Your task to perform on an android device: Go to privacy settings Image 0: 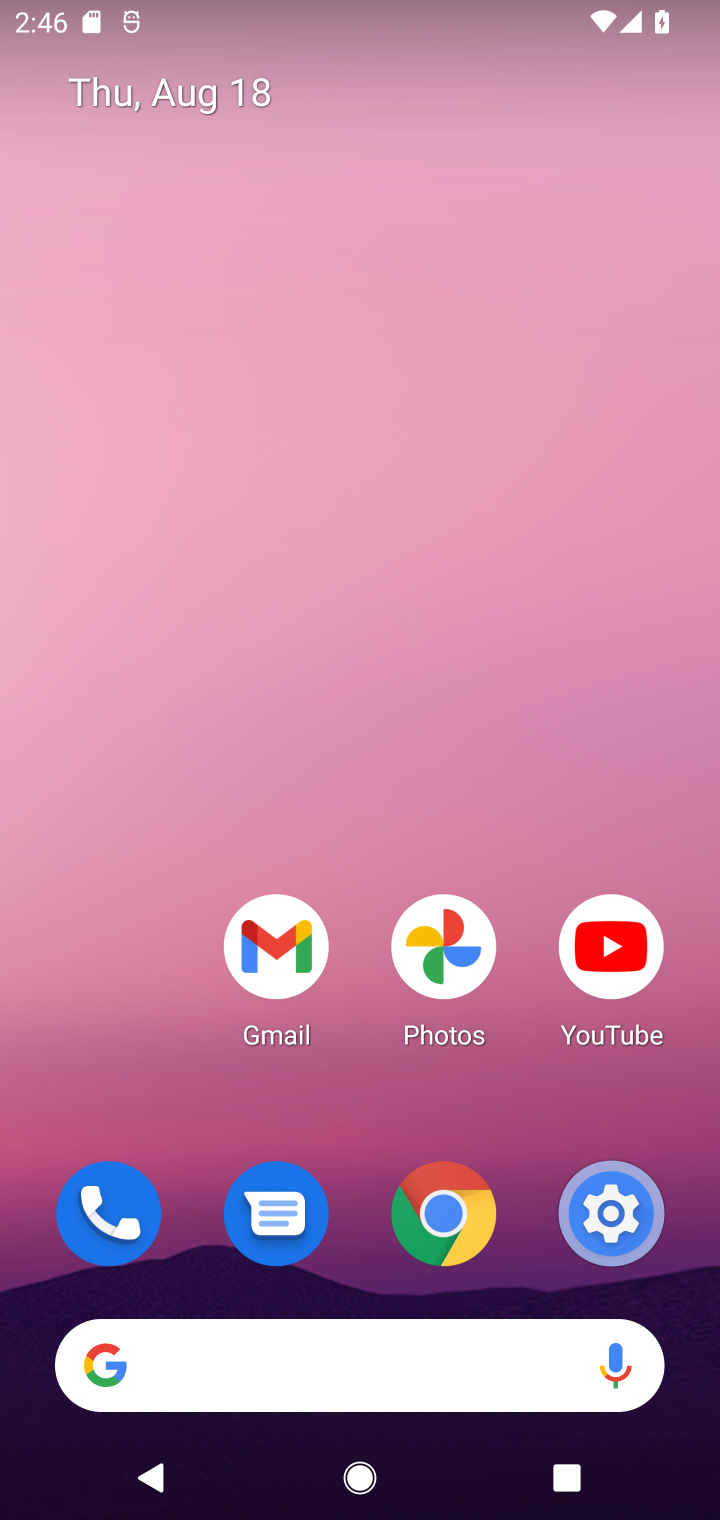
Step 0: press home button
Your task to perform on an android device: Go to privacy settings Image 1: 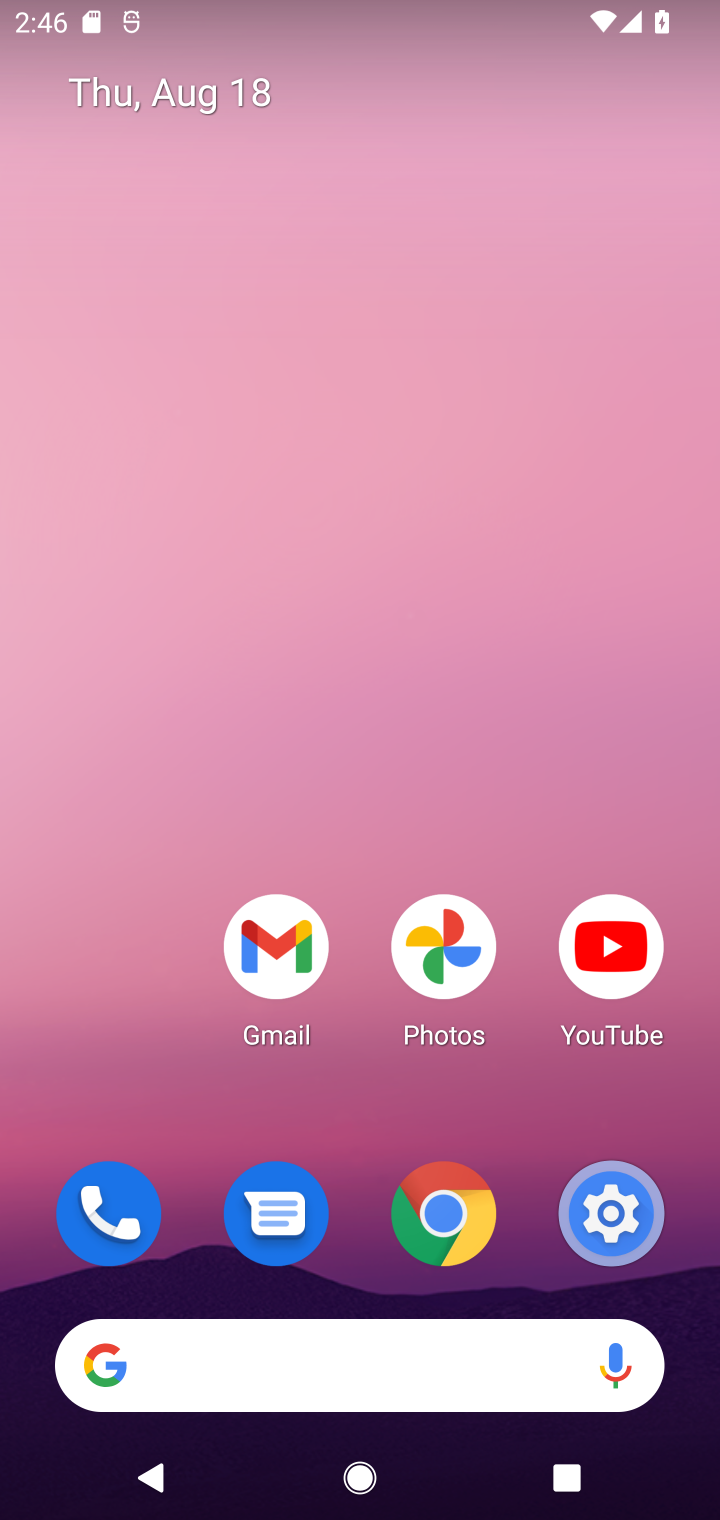
Step 1: click (622, 1215)
Your task to perform on an android device: Go to privacy settings Image 2: 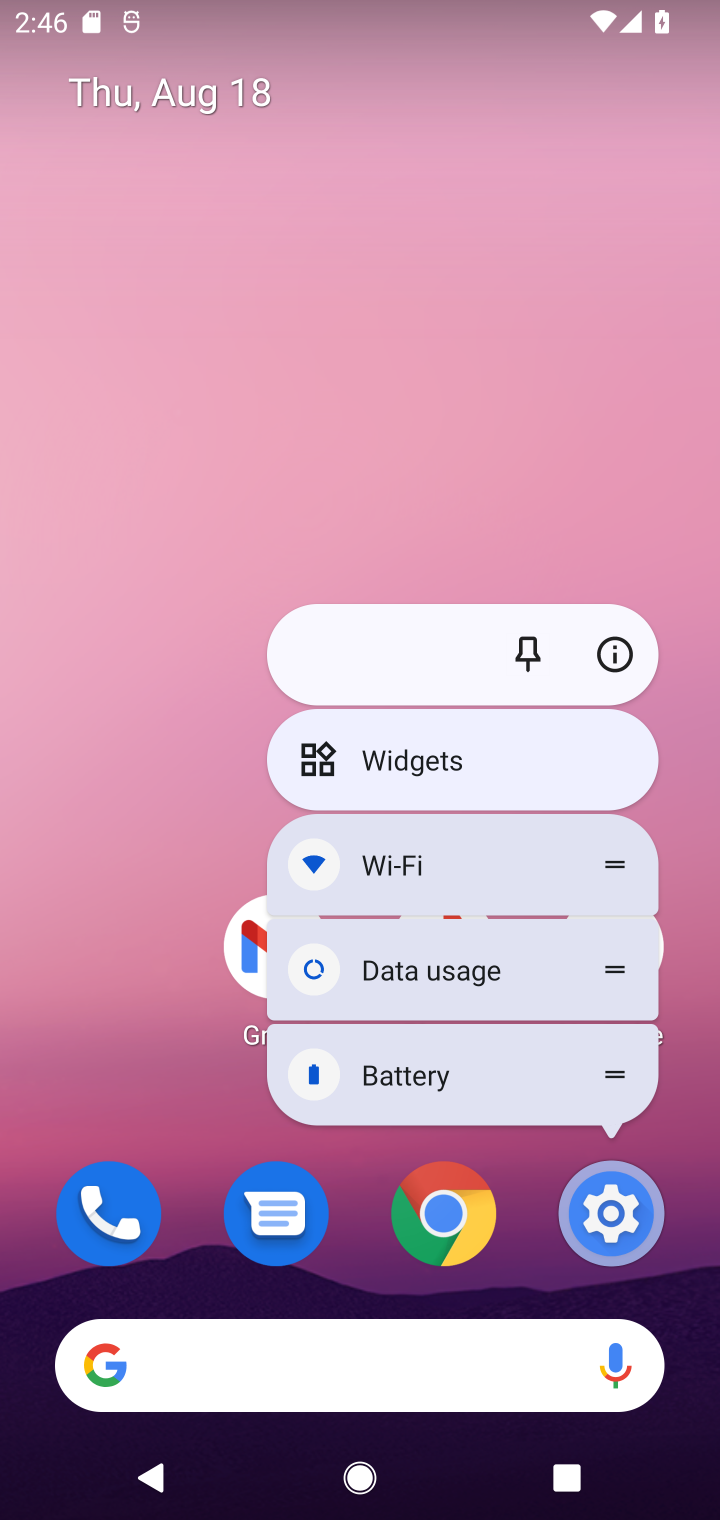
Step 2: click (611, 1223)
Your task to perform on an android device: Go to privacy settings Image 3: 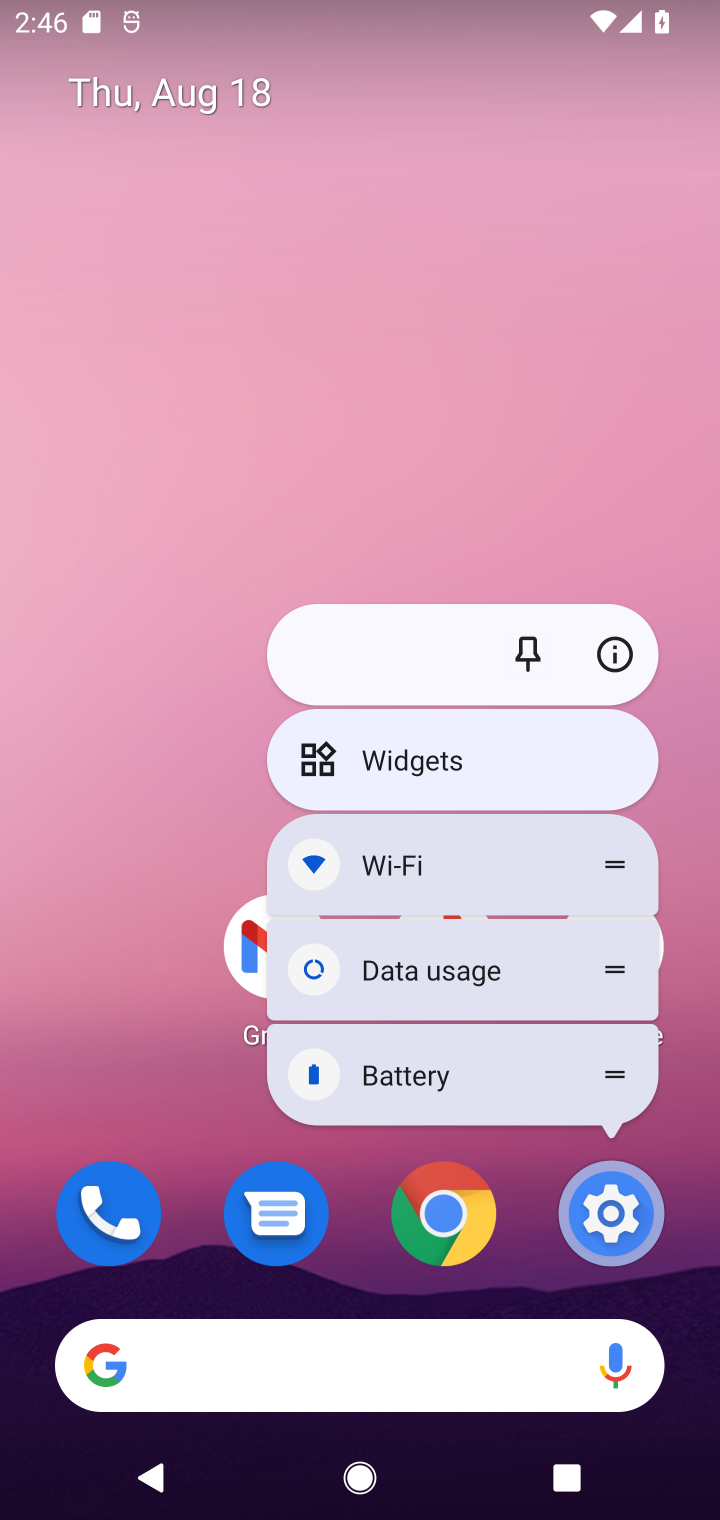
Step 3: click (611, 1223)
Your task to perform on an android device: Go to privacy settings Image 4: 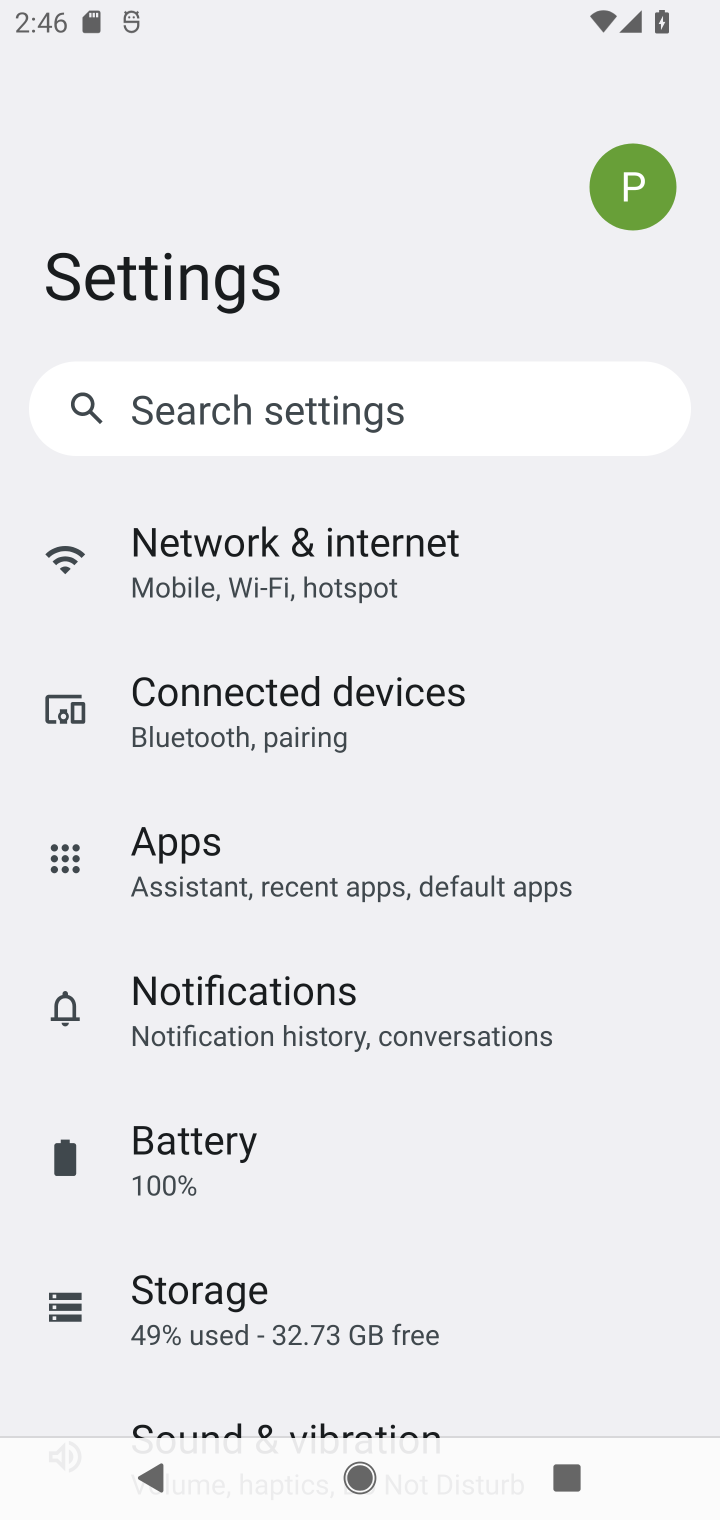
Step 4: click (375, 579)
Your task to perform on an android device: Go to privacy settings Image 5: 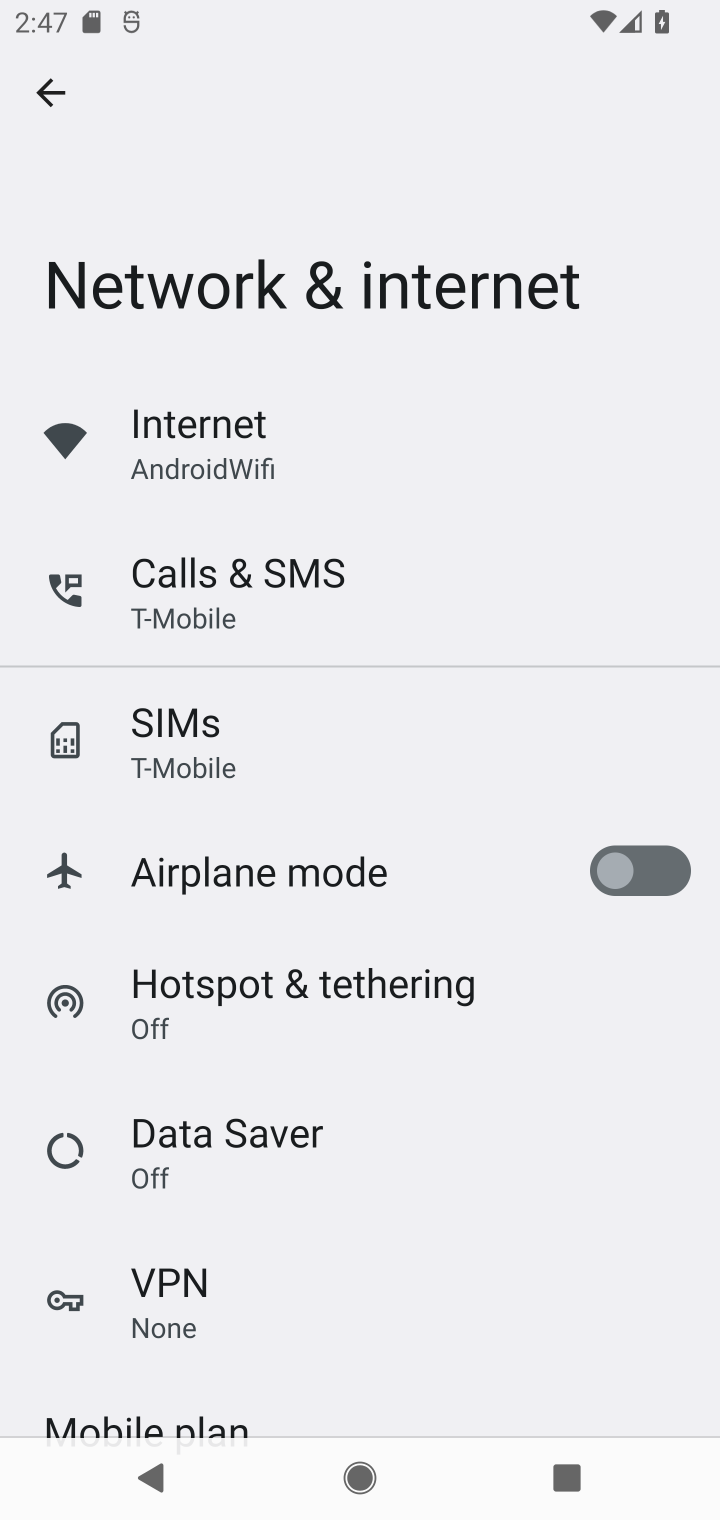
Step 5: drag from (70, 1240) to (127, 286)
Your task to perform on an android device: Go to privacy settings Image 6: 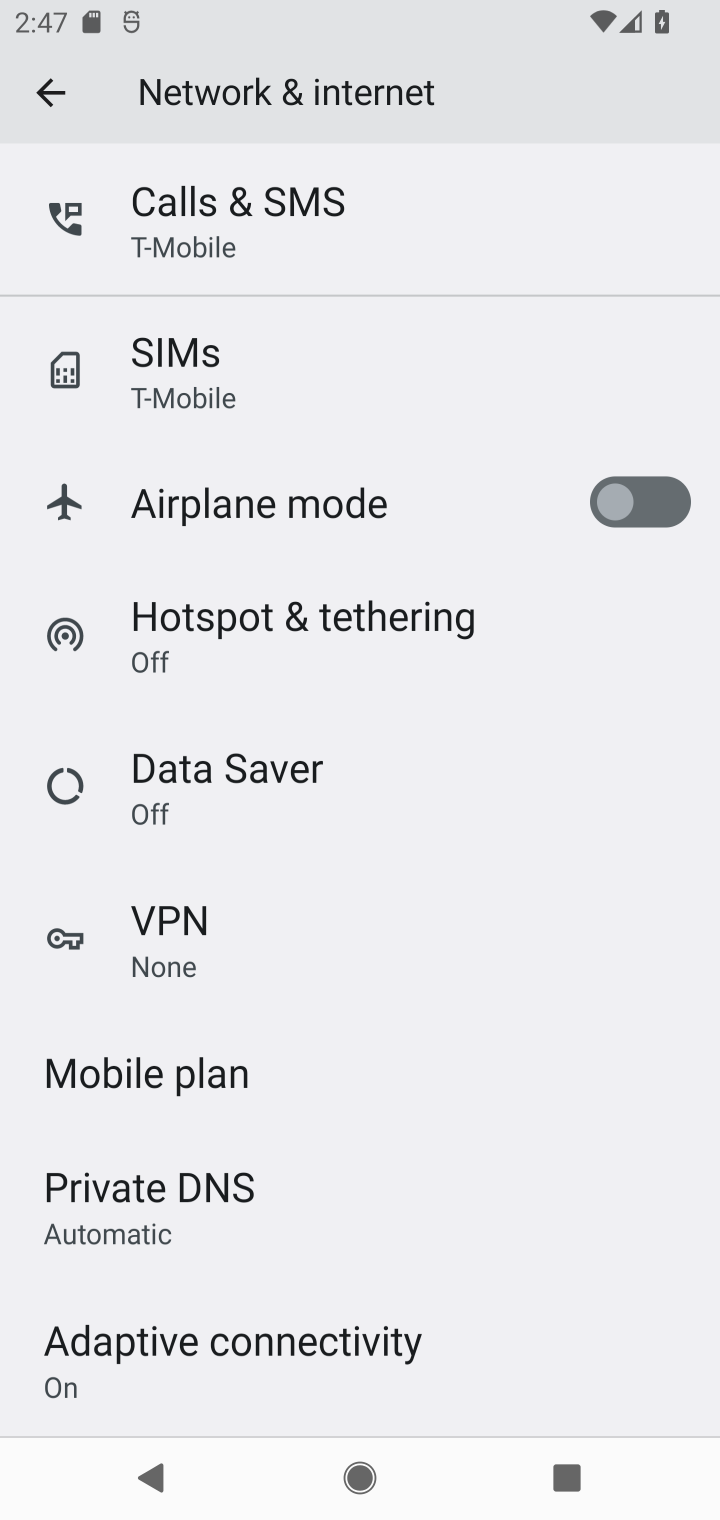
Step 6: drag from (191, 1269) to (249, 1514)
Your task to perform on an android device: Go to privacy settings Image 7: 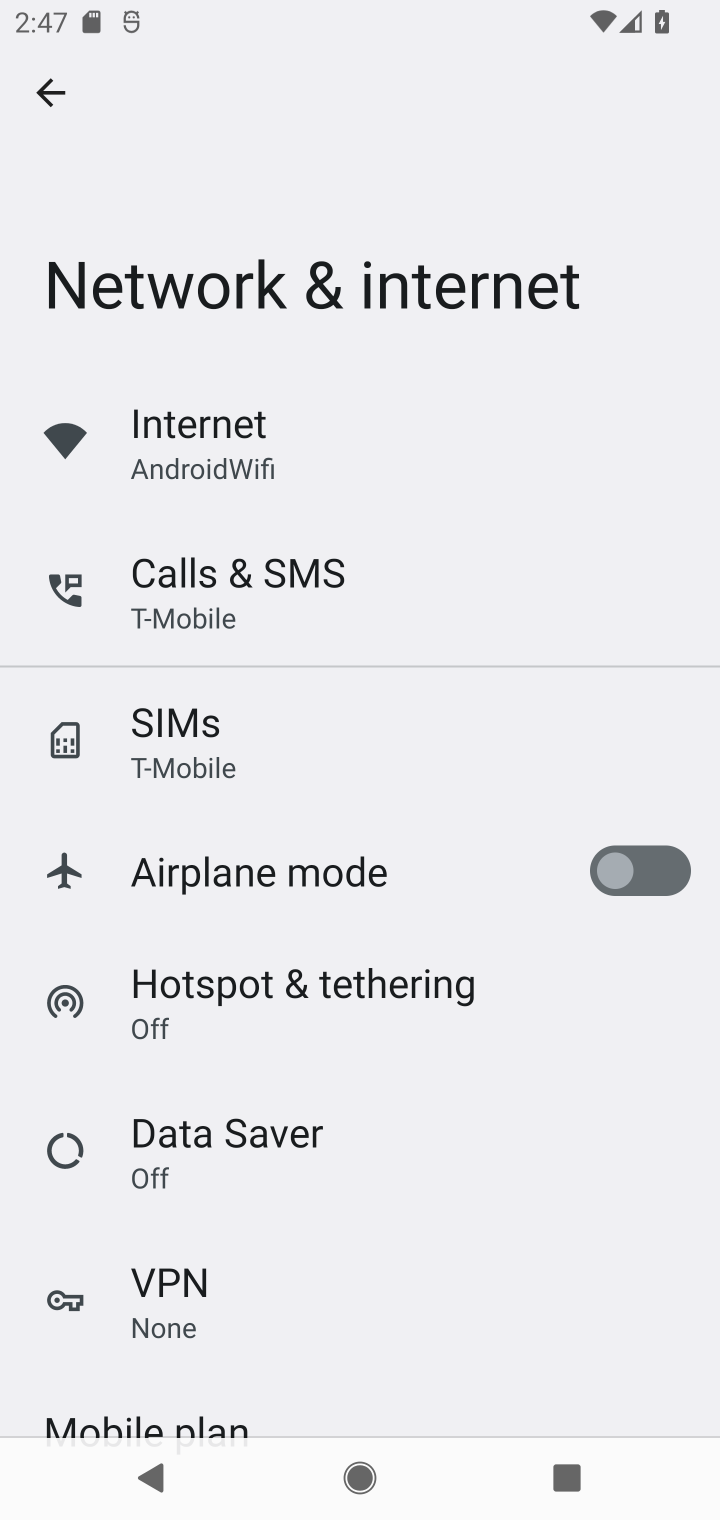
Step 7: drag from (128, 1373) to (230, 354)
Your task to perform on an android device: Go to privacy settings Image 8: 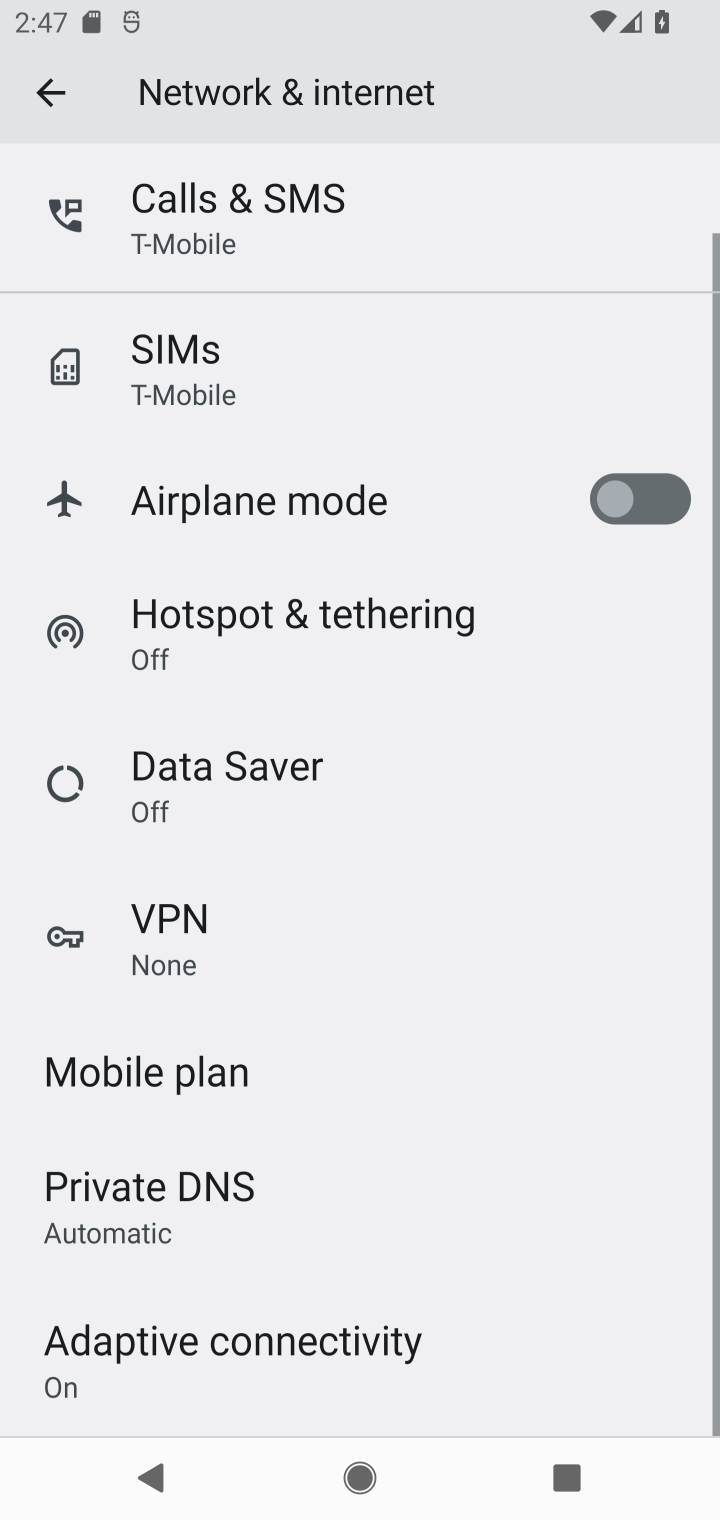
Step 8: click (45, 101)
Your task to perform on an android device: Go to privacy settings Image 9: 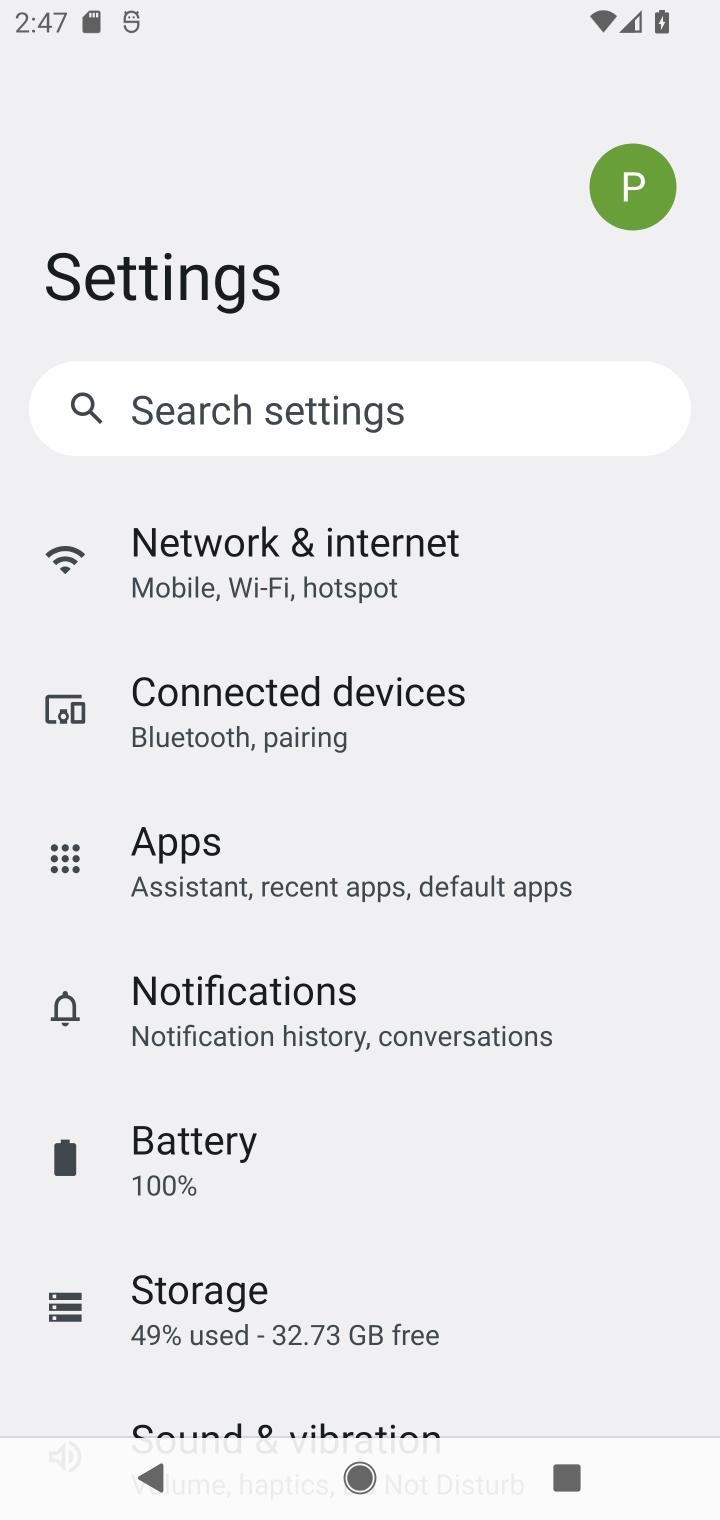
Step 9: drag from (393, 1255) to (414, 446)
Your task to perform on an android device: Go to privacy settings Image 10: 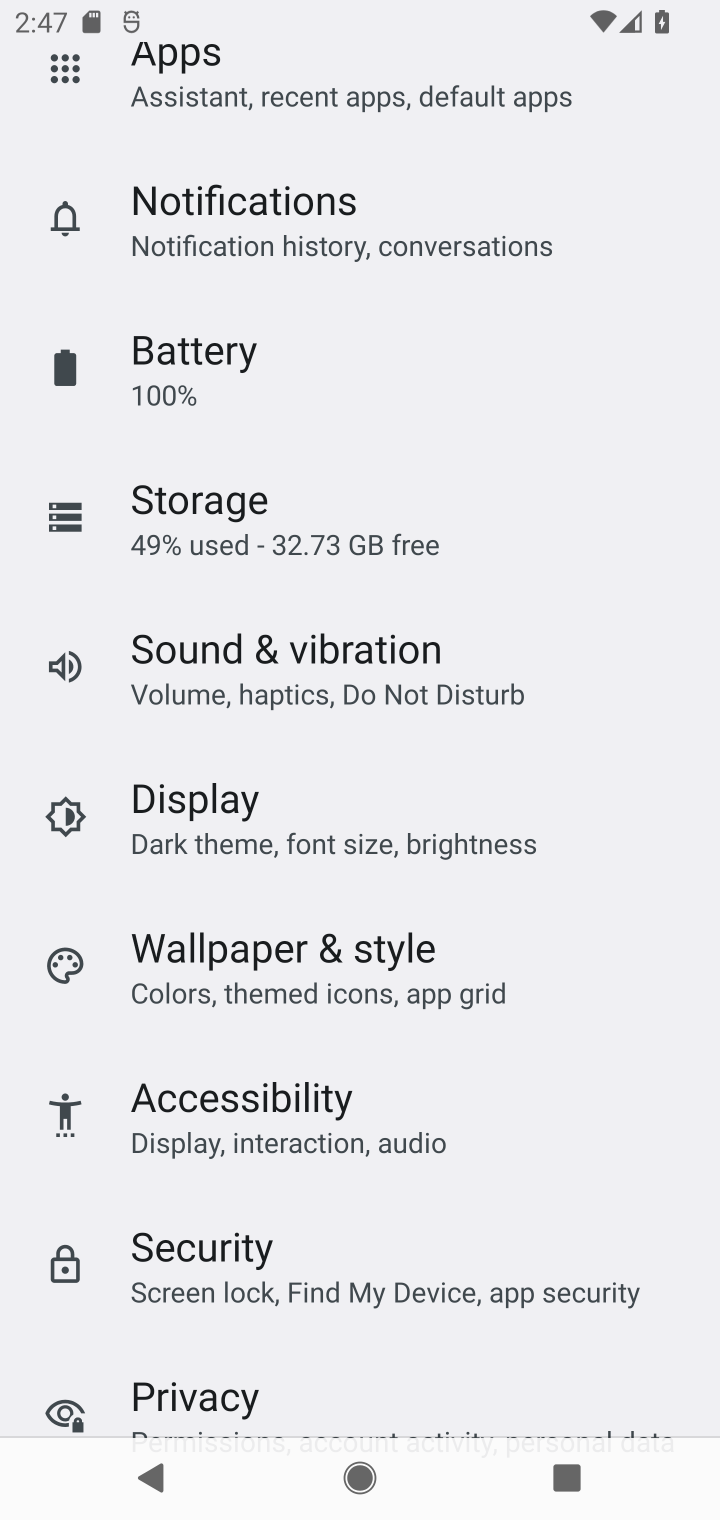
Step 10: click (256, 1409)
Your task to perform on an android device: Go to privacy settings Image 11: 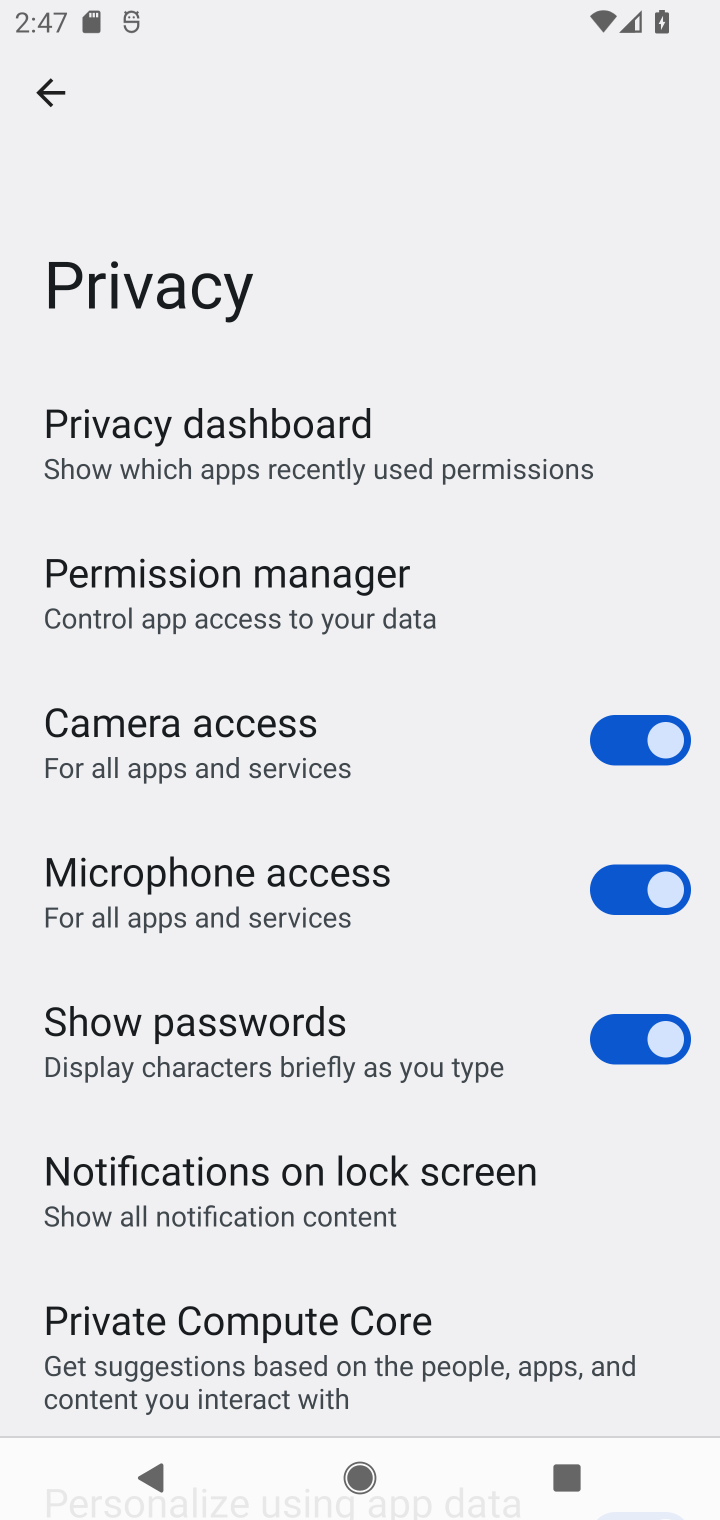
Step 11: task complete